Your task to perform on an android device: toggle notification dots Image 0: 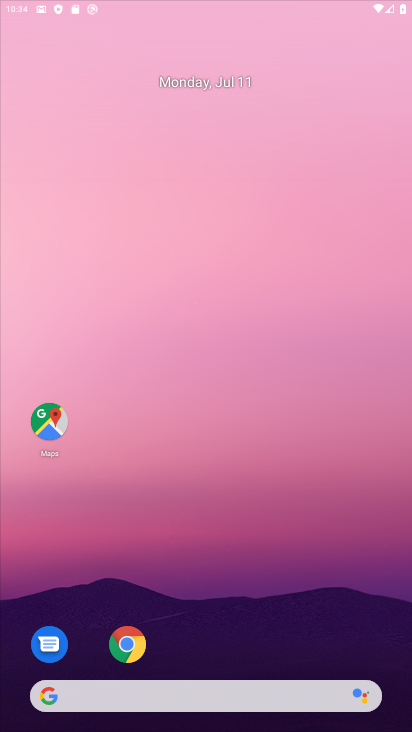
Step 0: drag from (254, 641) to (246, 148)
Your task to perform on an android device: toggle notification dots Image 1: 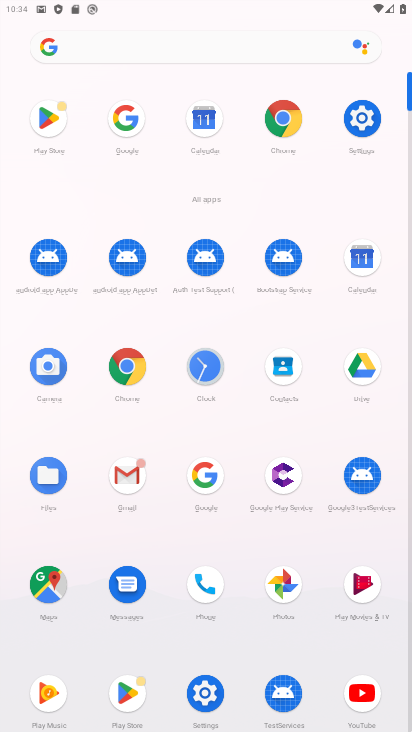
Step 1: click (352, 116)
Your task to perform on an android device: toggle notification dots Image 2: 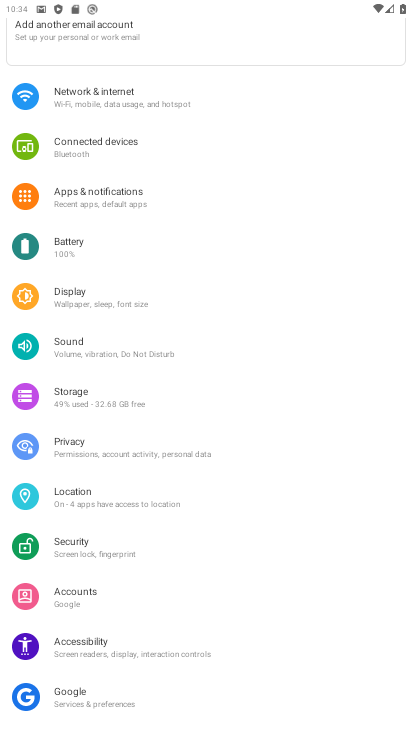
Step 2: drag from (200, 149) to (208, 579)
Your task to perform on an android device: toggle notification dots Image 3: 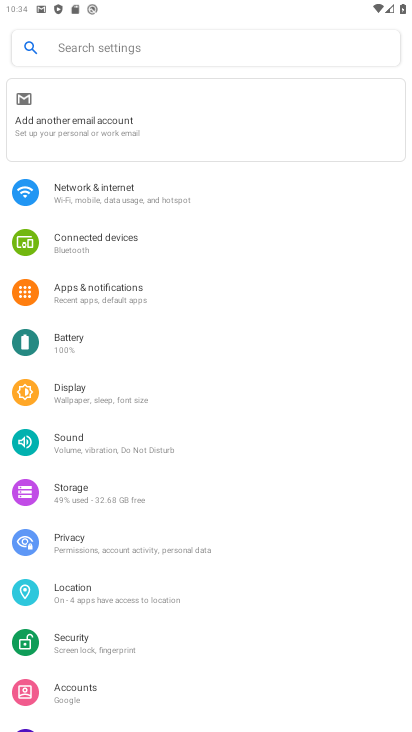
Step 3: click (173, 44)
Your task to perform on an android device: toggle notification dots Image 4: 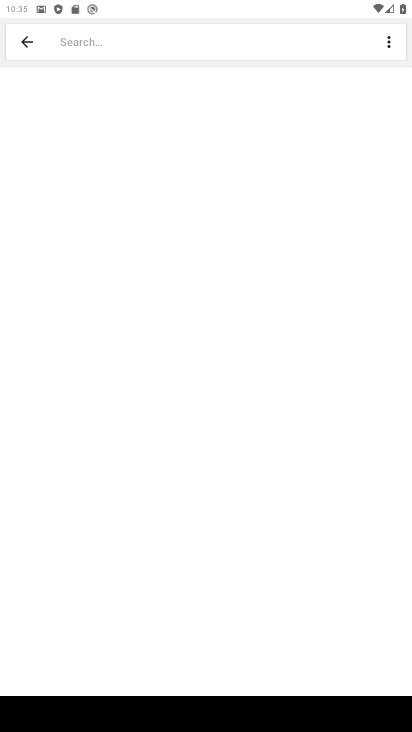
Step 4: click (179, 45)
Your task to perform on an android device: toggle notification dots Image 5: 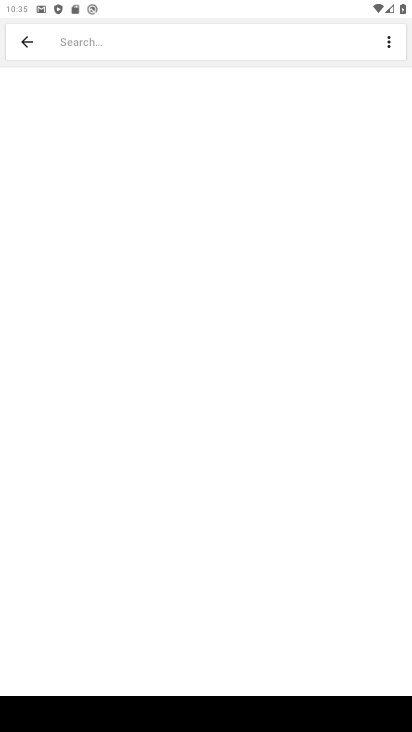
Step 5: type " notification dots "
Your task to perform on an android device: toggle notification dots Image 6: 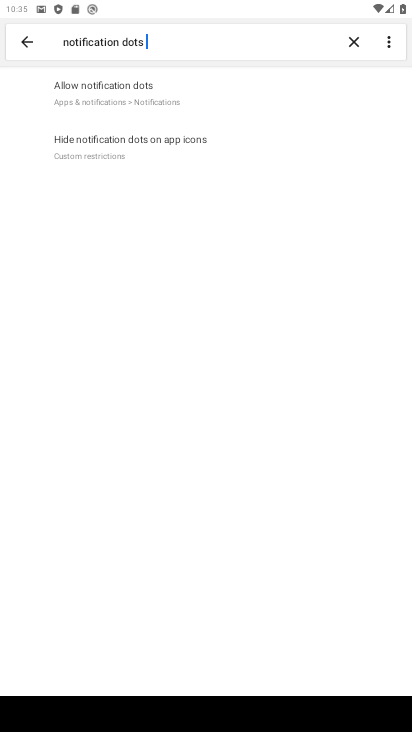
Step 6: click (170, 97)
Your task to perform on an android device: toggle notification dots Image 7: 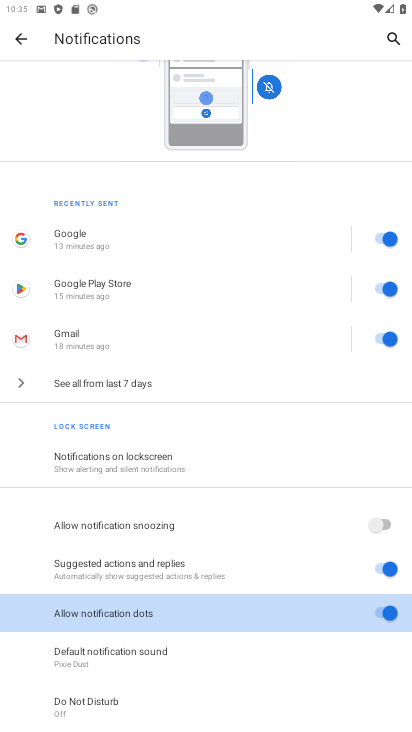
Step 7: click (375, 605)
Your task to perform on an android device: toggle notification dots Image 8: 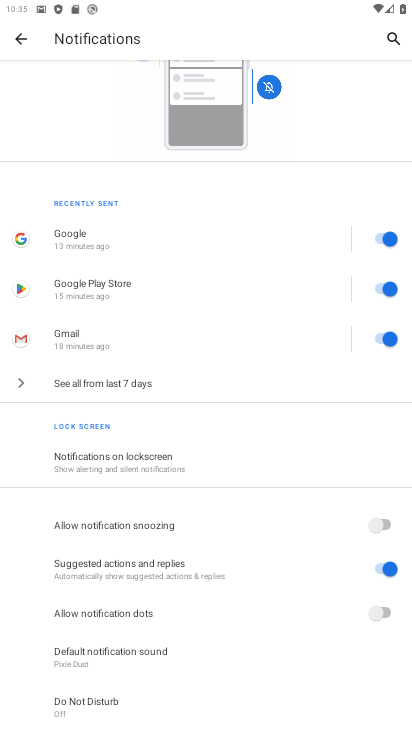
Step 8: task complete